Your task to perform on an android device: remove spam from my inbox in the gmail app Image 0: 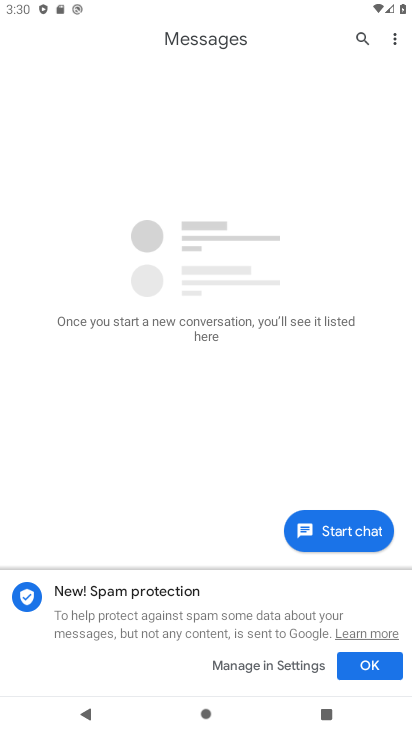
Step 0: press home button
Your task to perform on an android device: remove spam from my inbox in the gmail app Image 1: 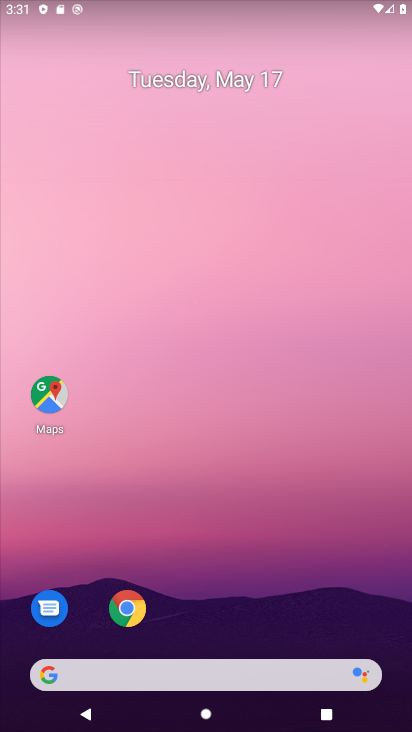
Step 1: click (237, 110)
Your task to perform on an android device: remove spam from my inbox in the gmail app Image 2: 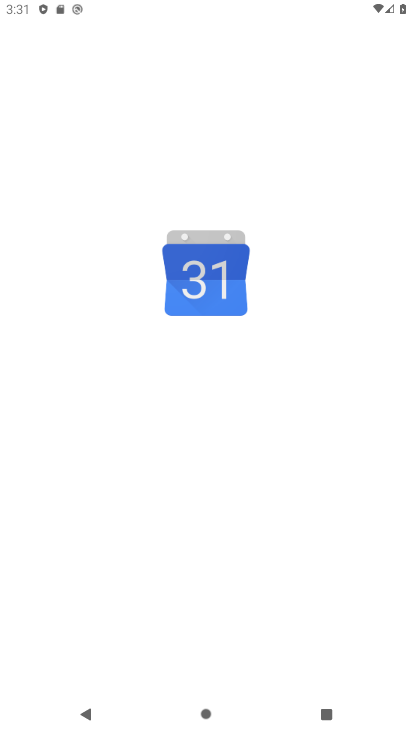
Step 2: drag from (230, 648) to (182, 293)
Your task to perform on an android device: remove spam from my inbox in the gmail app Image 3: 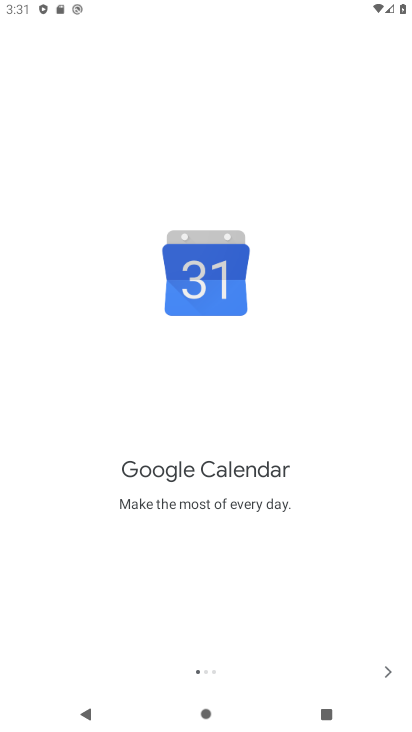
Step 3: press home button
Your task to perform on an android device: remove spam from my inbox in the gmail app Image 4: 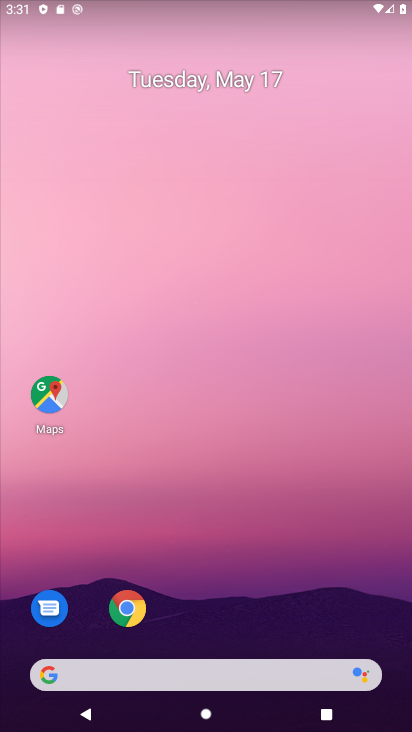
Step 4: drag from (239, 393) to (254, 281)
Your task to perform on an android device: remove spam from my inbox in the gmail app Image 5: 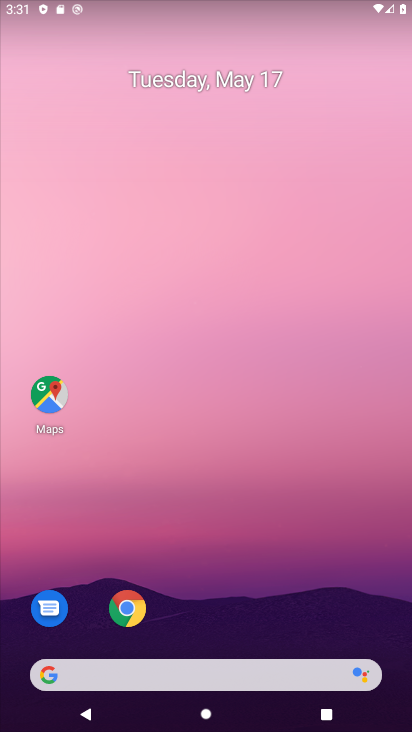
Step 5: drag from (181, 660) to (207, 324)
Your task to perform on an android device: remove spam from my inbox in the gmail app Image 6: 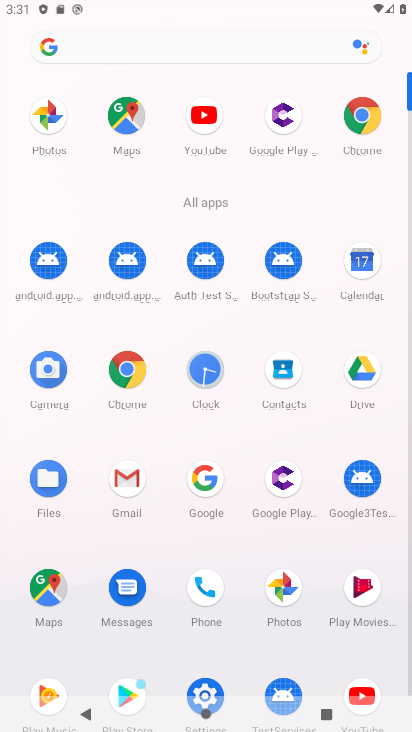
Step 6: click (126, 487)
Your task to perform on an android device: remove spam from my inbox in the gmail app Image 7: 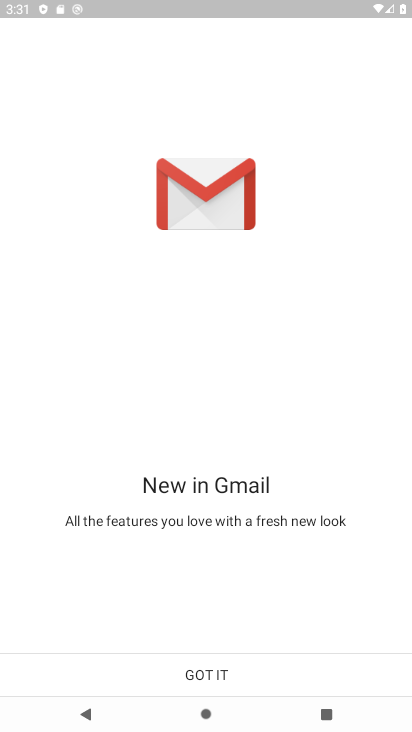
Step 7: click (204, 673)
Your task to perform on an android device: remove spam from my inbox in the gmail app Image 8: 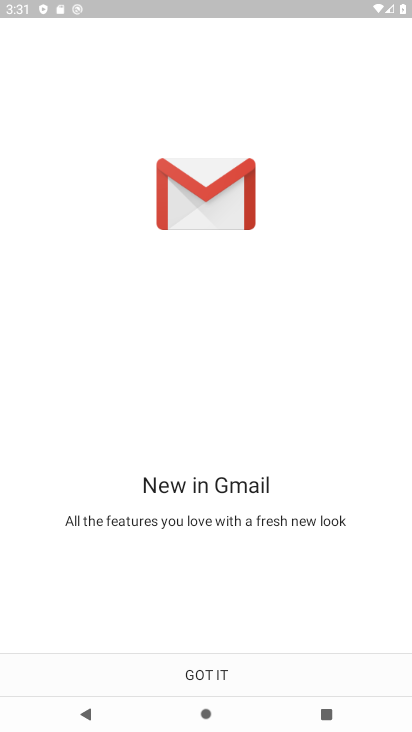
Step 8: click (202, 672)
Your task to perform on an android device: remove spam from my inbox in the gmail app Image 9: 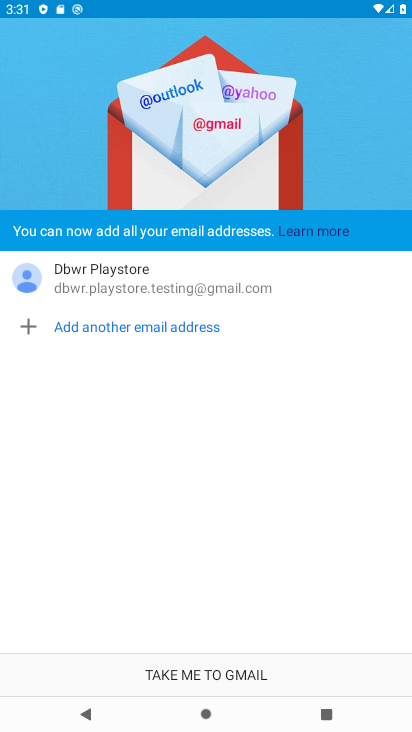
Step 9: click (203, 680)
Your task to perform on an android device: remove spam from my inbox in the gmail app Image 10: 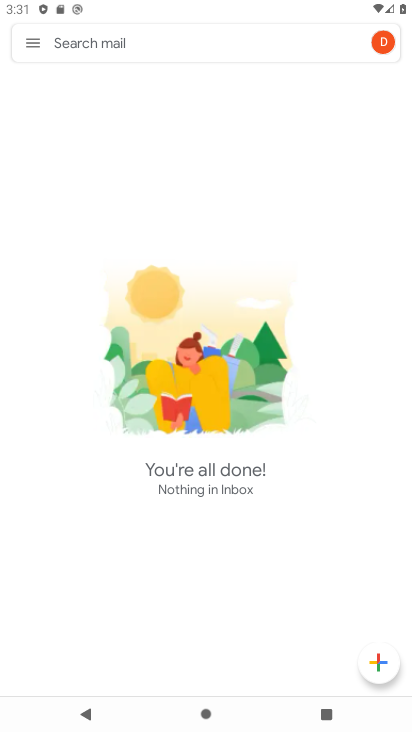
Step 10: click (32, 44)
Your task to perform on an android device: remove spam from my inbox in the gmail app Image 11: 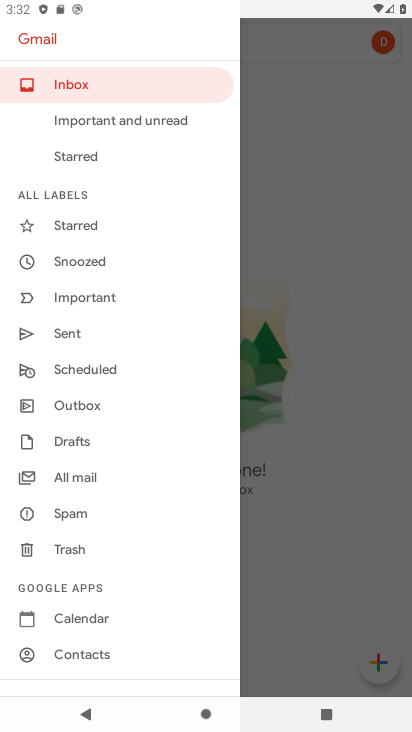
Step 11: task complete